Your task to perform on an android device: turn on bluetooth scan Image 0: 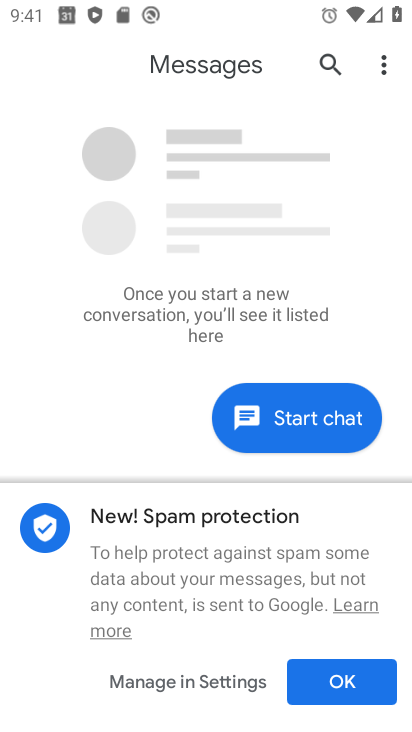
Step 0: press home button
Your task to perform on an android device: turn on bluetooth scan Image 1: 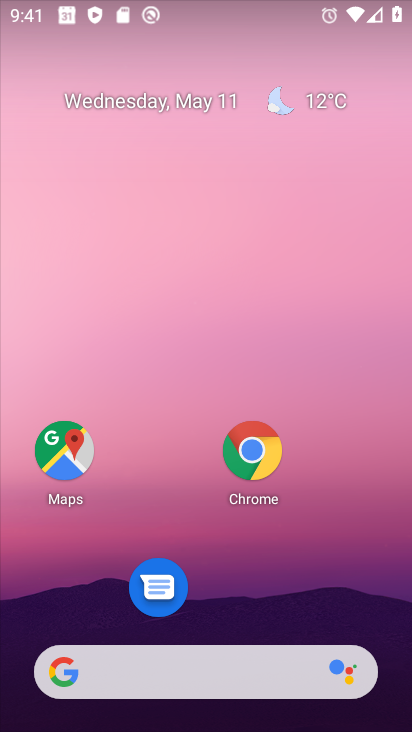
Step 1: drag from (349, 424) to (303, 20)
Your task to perform on an android device: turn on bluetooth scan Image 2: 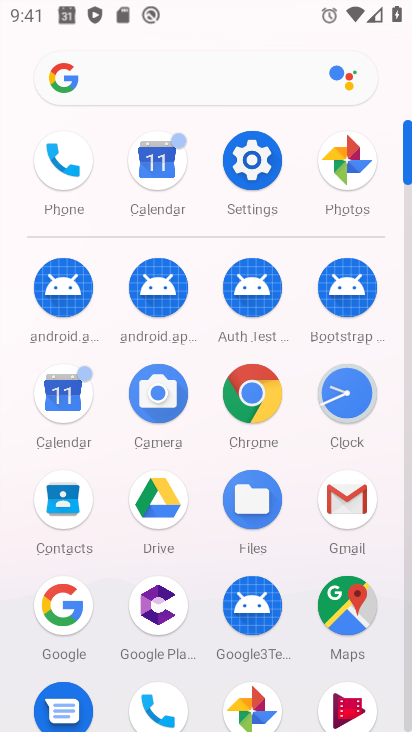
Step 2: click (245, 179)
Your task to perform on an android device: turn on bluetooth scan Image 3: 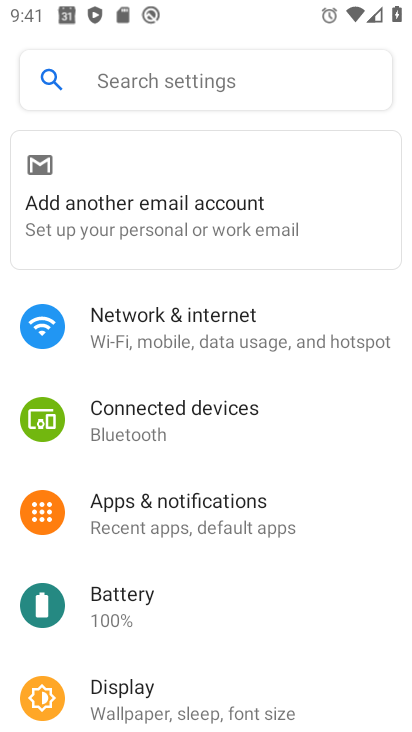
Step 3: drag from (280, 548) to (264, 158)
Your task to perform on an android device: turn on bluetooth scan Image 4: 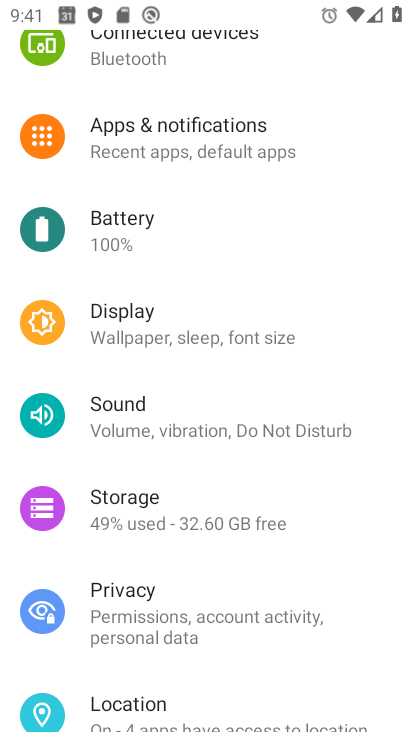
Step 4: drag from (278, 578) to (249, 216)
Your task to perform on an android device: turn on bluetooth scan Image 5: 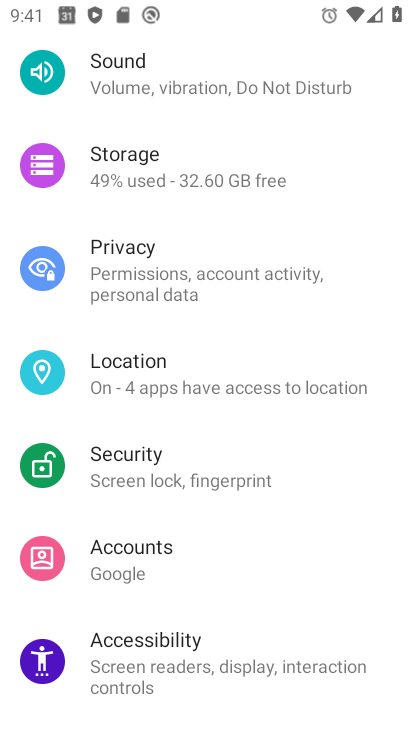
Step 5: click (122, 383)
Your task to perform on an android device: turn on bluetooth scan Image 6: 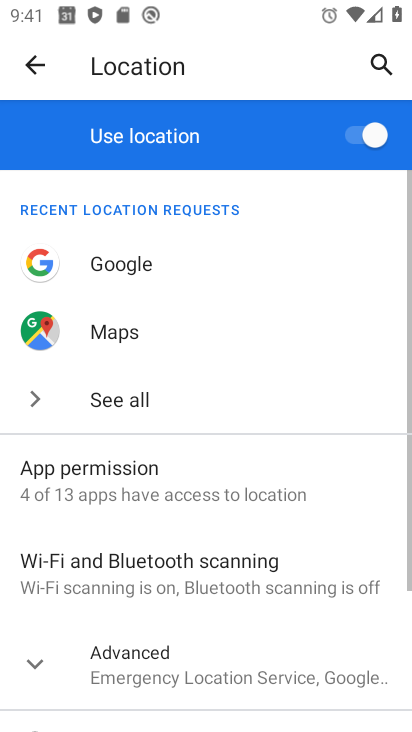
Step 6: click (160, 586)
Your task to perform on an android device: turn on bluetooth scan Image 7: 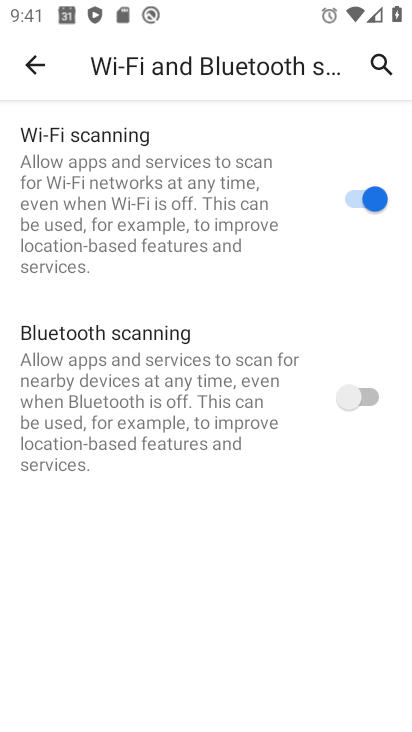
Step 7: click (345, 405)
Your task to perform on an android device: turn on bluetooth scan Image 8: 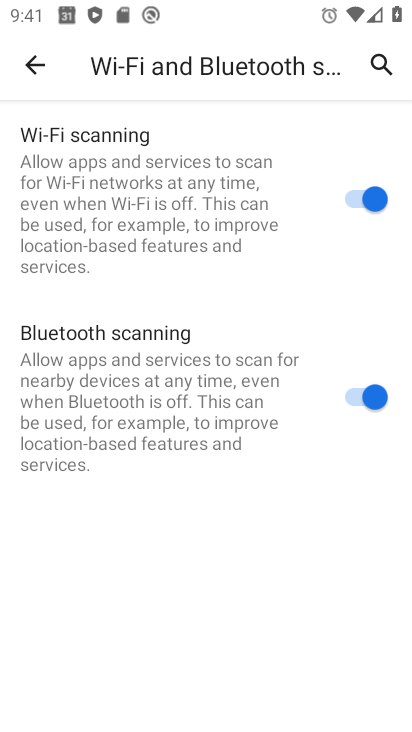
Step 8: task complete